Your task to perform on an android device: open sync settings in chrome Image 0: 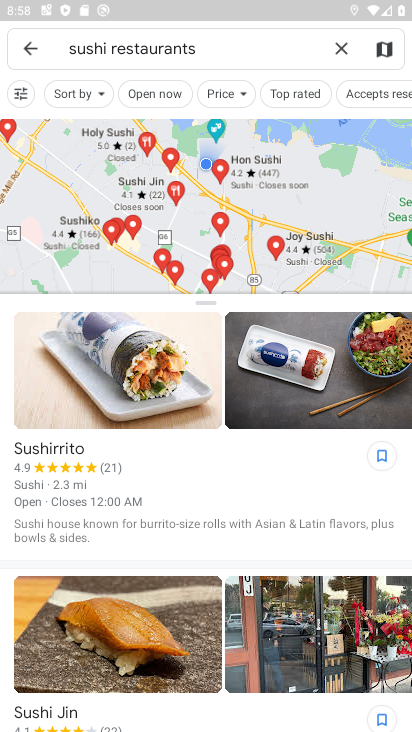
Step 0: press home button
Your task to perform on an android device: open sync settings in chrome Image 1: 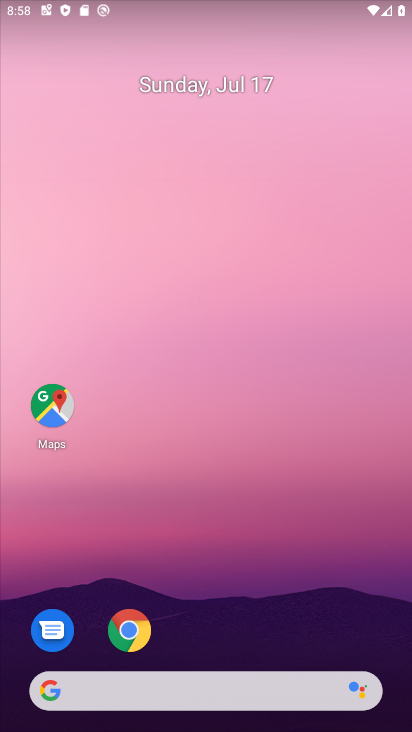
Step 1: drag from (121, 679) to (236, 100)
Your task to perform on an android device: open sync settings in chrome Image 2: 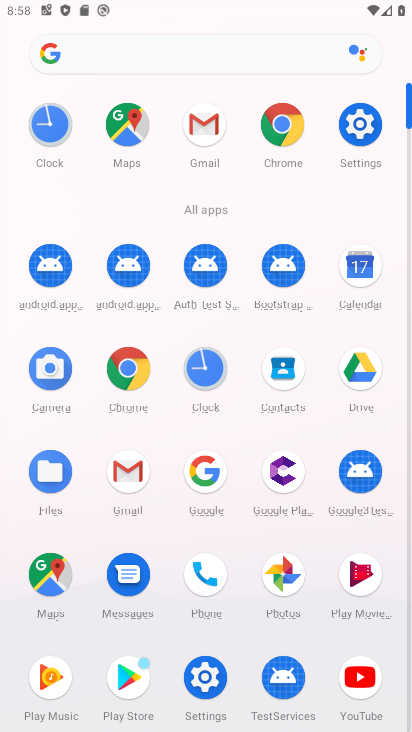
Step 2: click (141, 354)
Your task to perform on an android device: open sync settings in chrome Image 3: 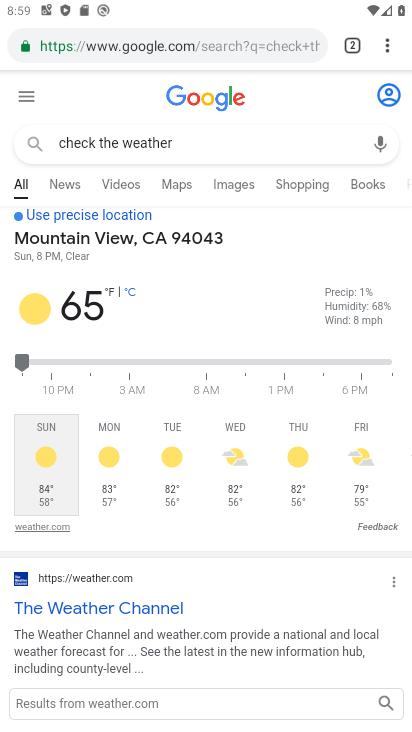
Step 3: drag from (378, 35) to (260, 499)
Your task to perform on an android device: open sync settings in chrome Image 4: 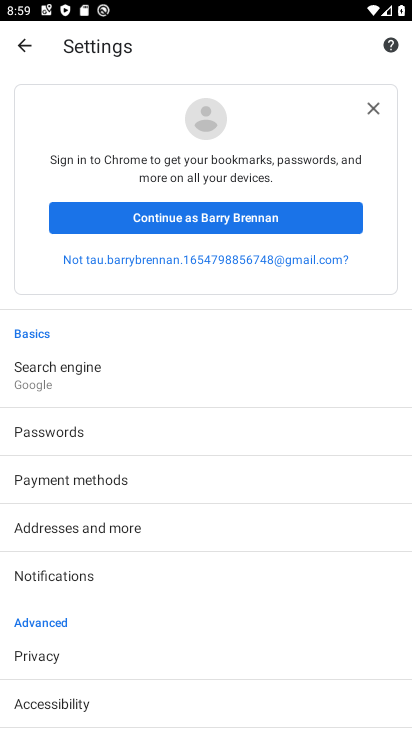
Step 4: drag from (155, 675) to (175, 247)
Your task to perform on an android device: open sync settings in chrome Image 5: 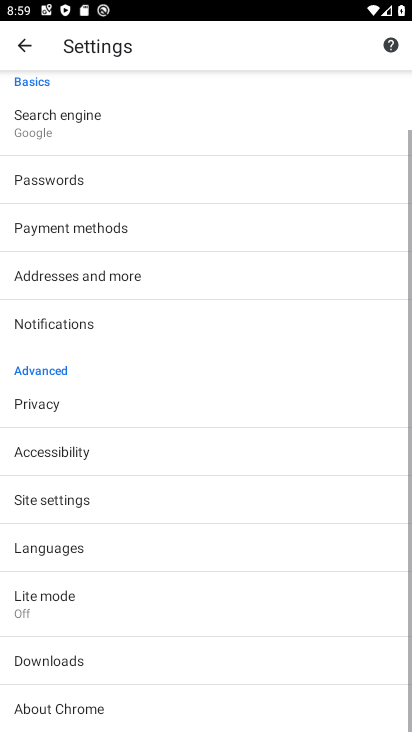
Step 5: click (67, 505)
Your task to perform on an android device: open sync settings in chrome Image 6: 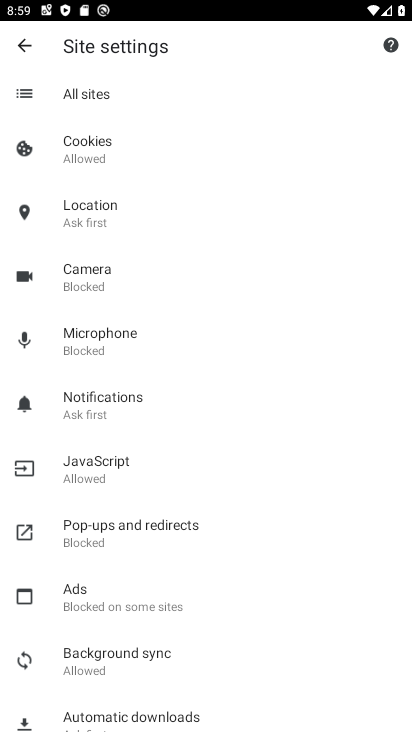
Step 6: drag from (131, 513) to (190, 299)
Your task to perform on an android device: open sync settings in chrome Image 7: 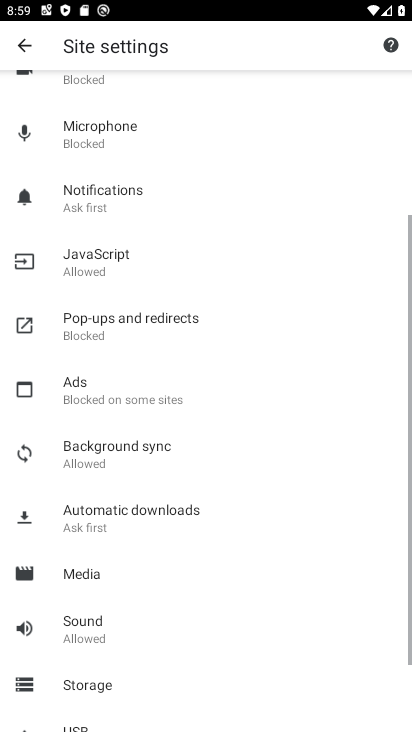
Step 7: click (134, 450)
Your task to perform on an android device: open sync settings in chrome Image 8: 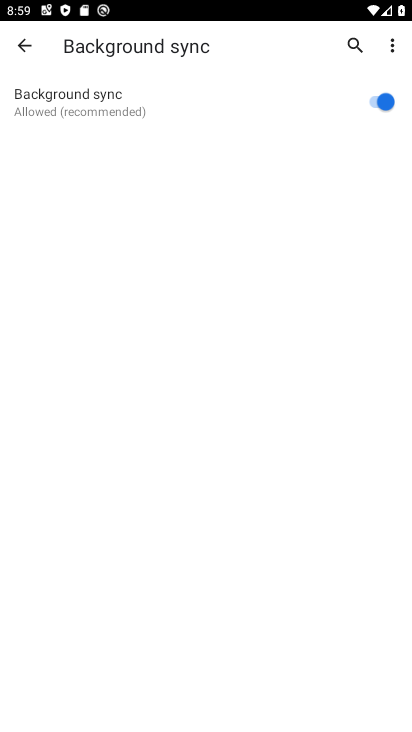
Step 8: task complete